Your task to perform on an android device: check storage Image 0: 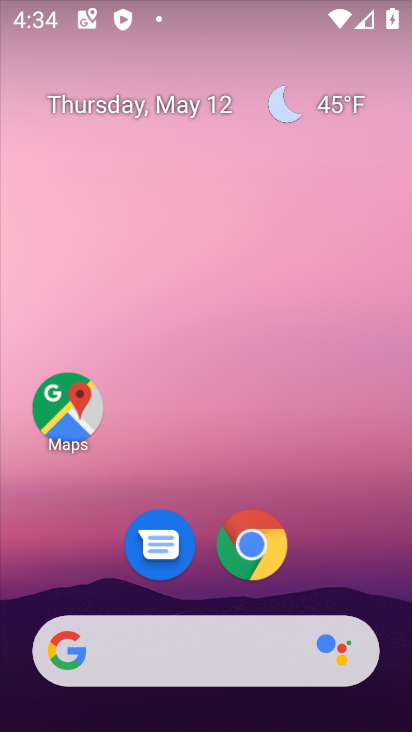
Step 0: drag from (360, 472) to (390, 34)
Your task to perform on an android device: check storage Image 1: 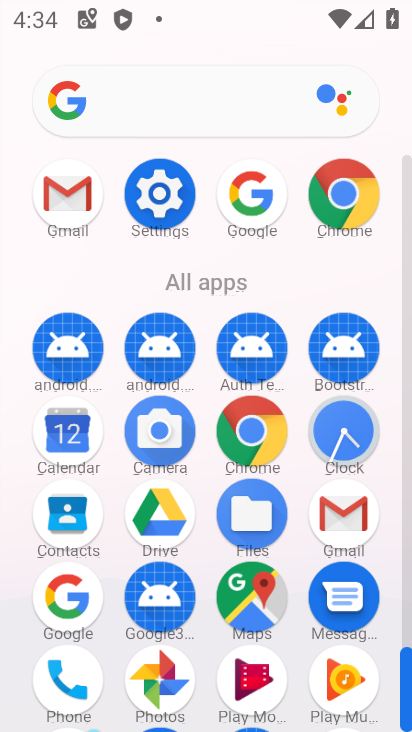
Step 1: click (166, 203)
Your task to perform on an android device: check storage Image 2: 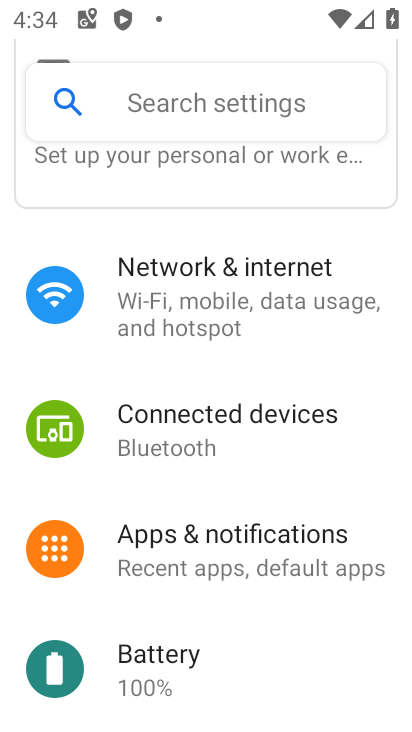
Step 2: drag from (191, 542) to (243, 73)
Your task to perform on an android device: check storage Image 3: 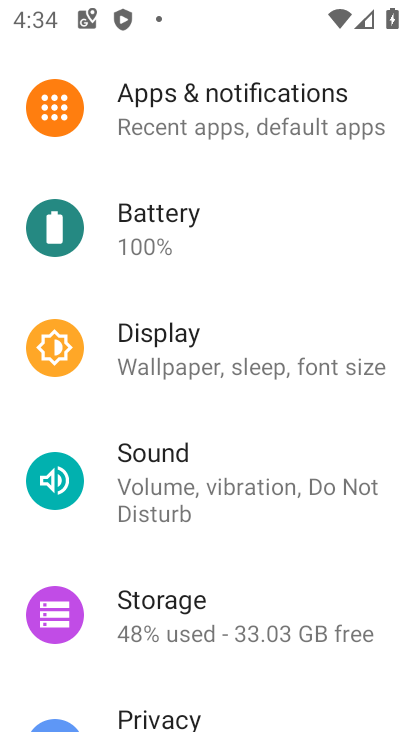
Step 3: drag from (198, 587) to (309, 174)
Your task to perform on an android device: check storage Image 4: 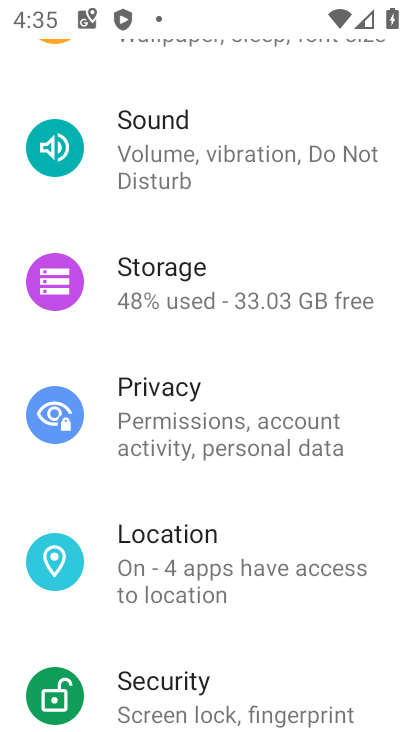
Step 4: click (187, 295)
Your task to perform on an android device: check storage Image 5: 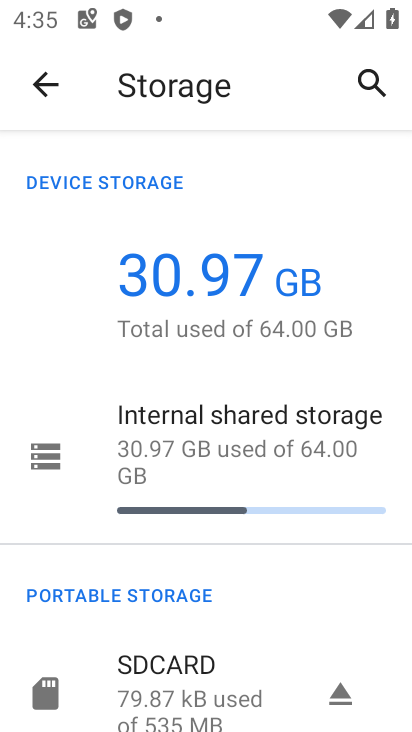
Step 5: task complete